Your task to perform on an android device: Open the music app Image 0: 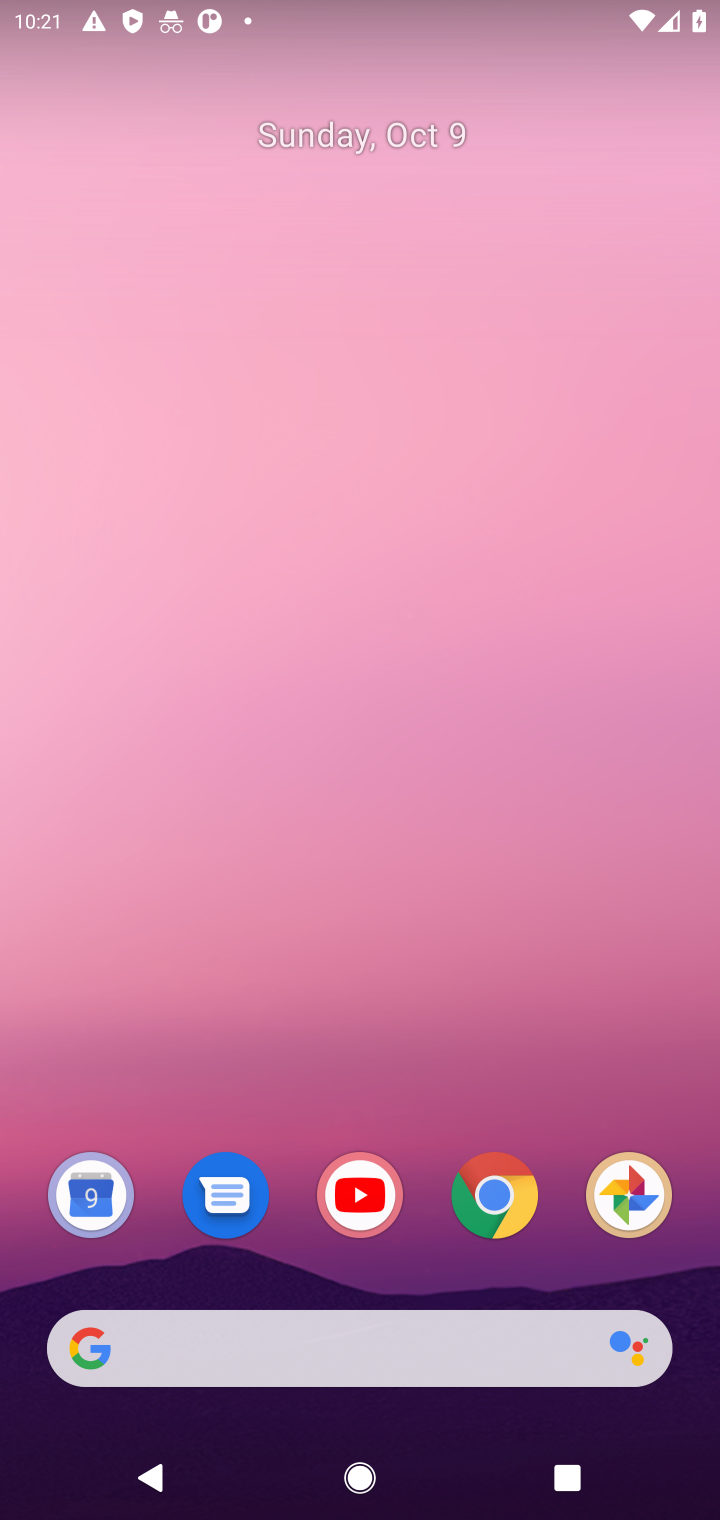
Step 0: click (655, 257)
Your task to perform on an android device: Open the music app Image 1: 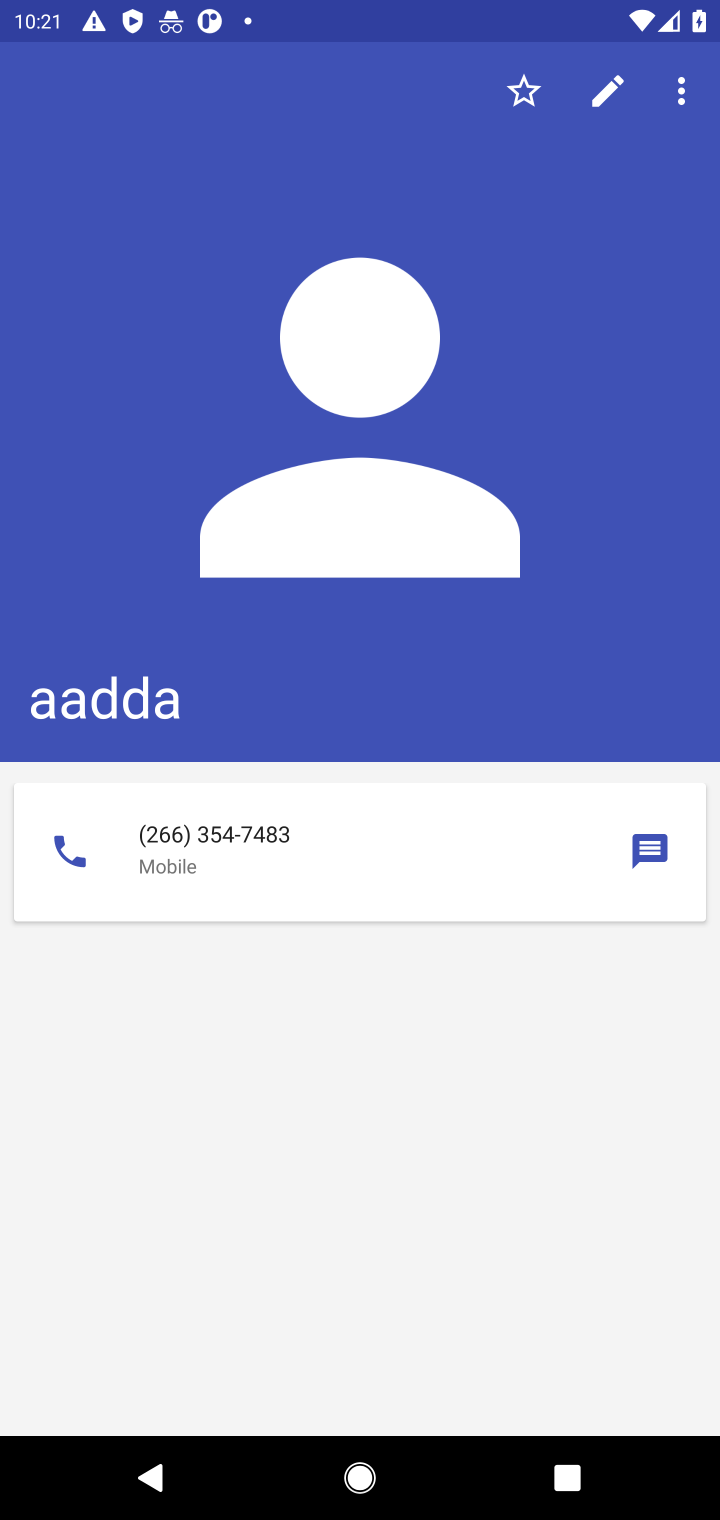
Step 1: press home button
Your task to perform on an android device: Open the music app Image 2: 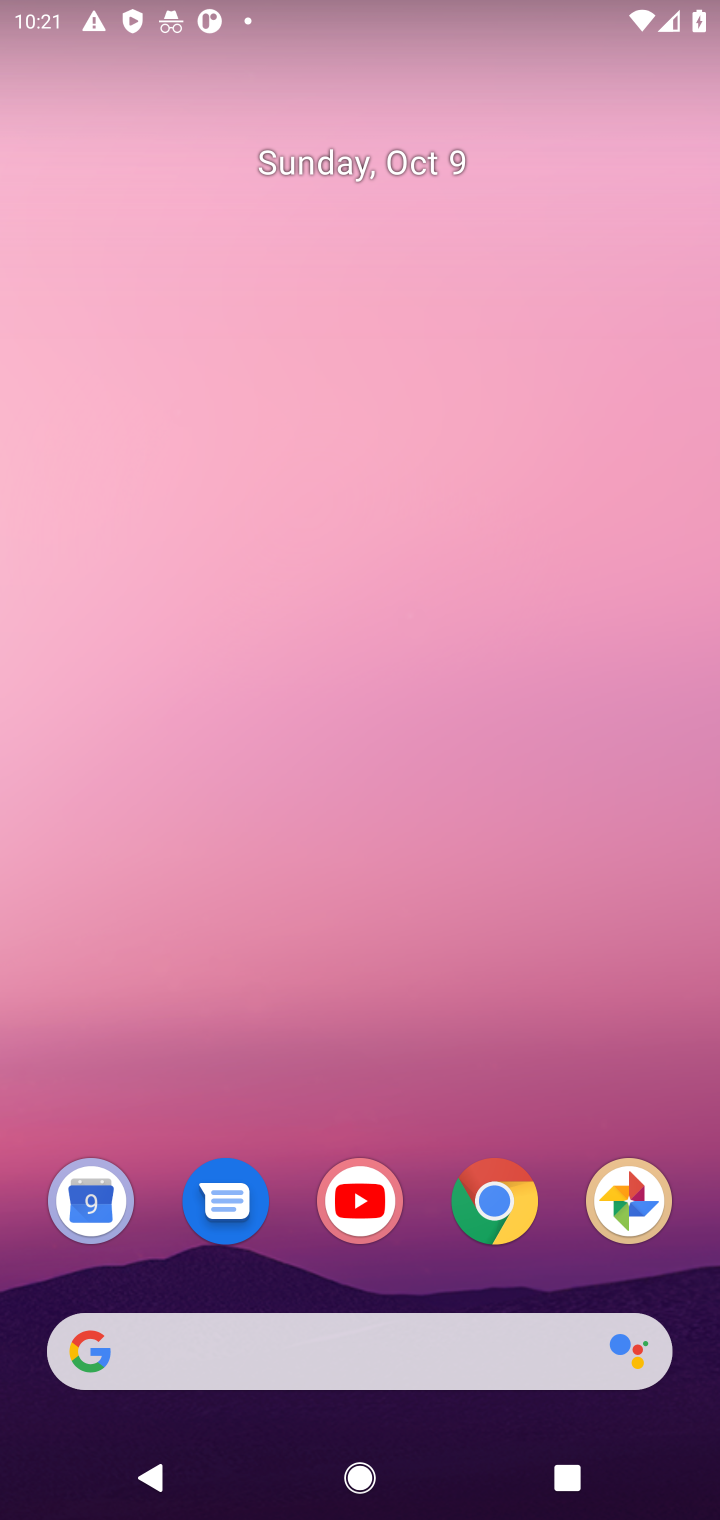
Step 2: drag from (334, 1320) to (382, 3)
Your task to perform on an android device: Open the music app Image 3: 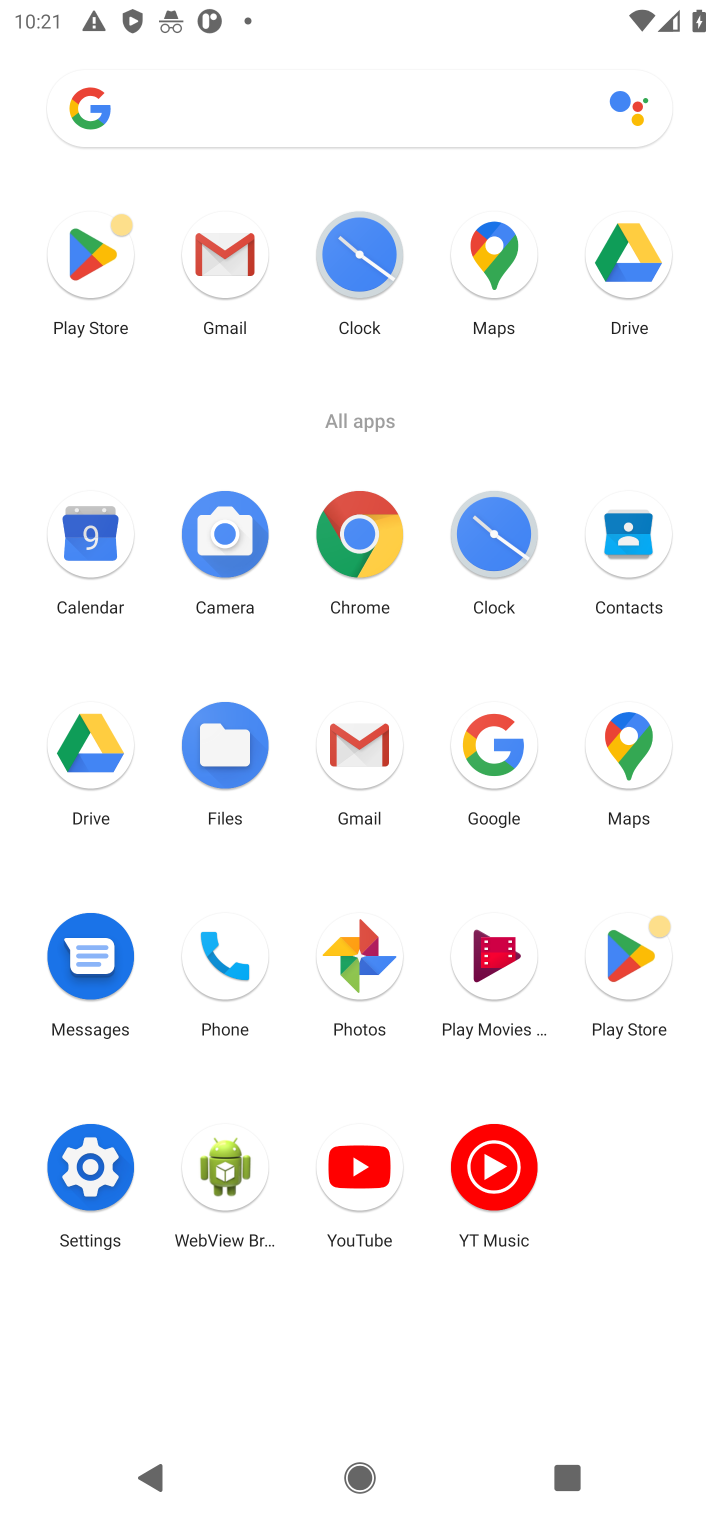
Step 3: click (627, 970)
Your task to perform on an android device: Open the music app Image 4: 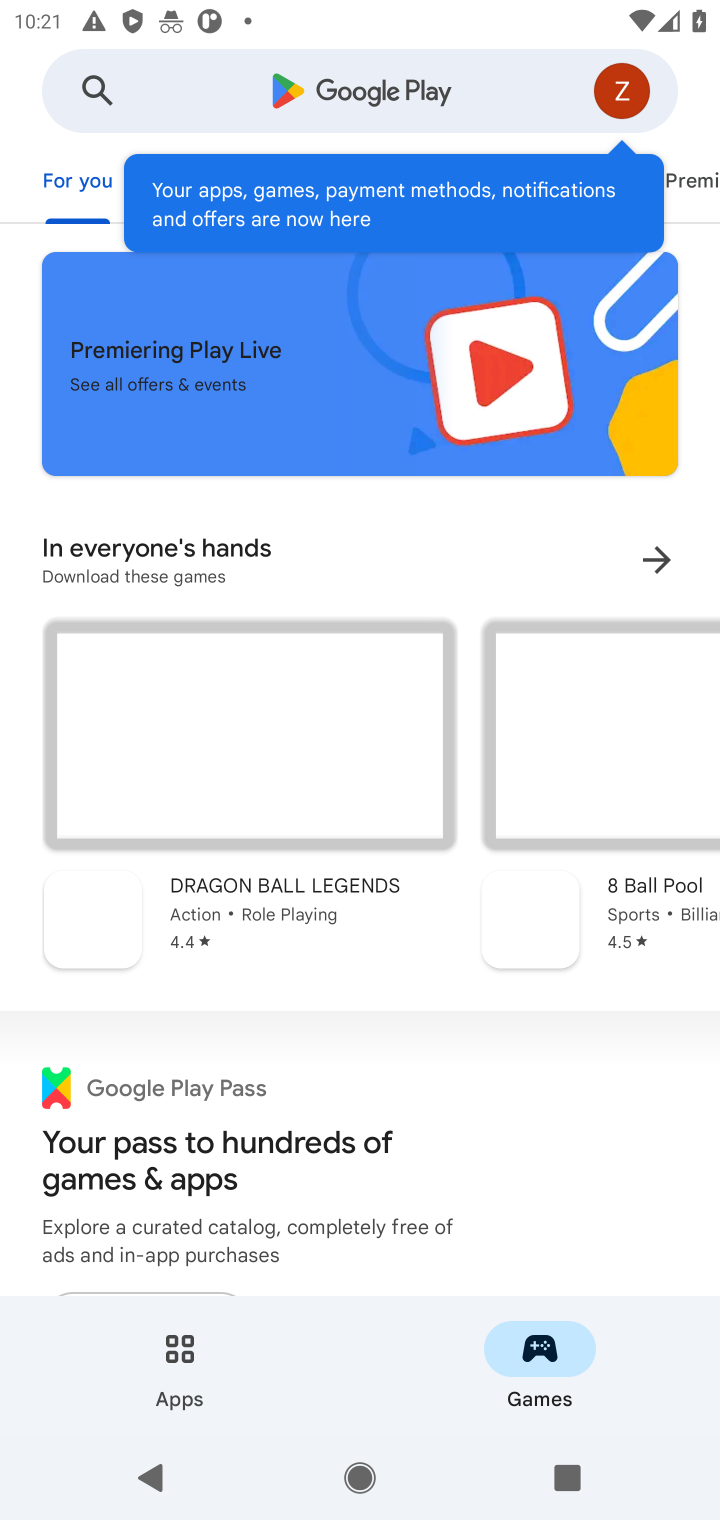
Step 4: click (384, 76)
Your task to perform on an android device: Open the music app Image 5: 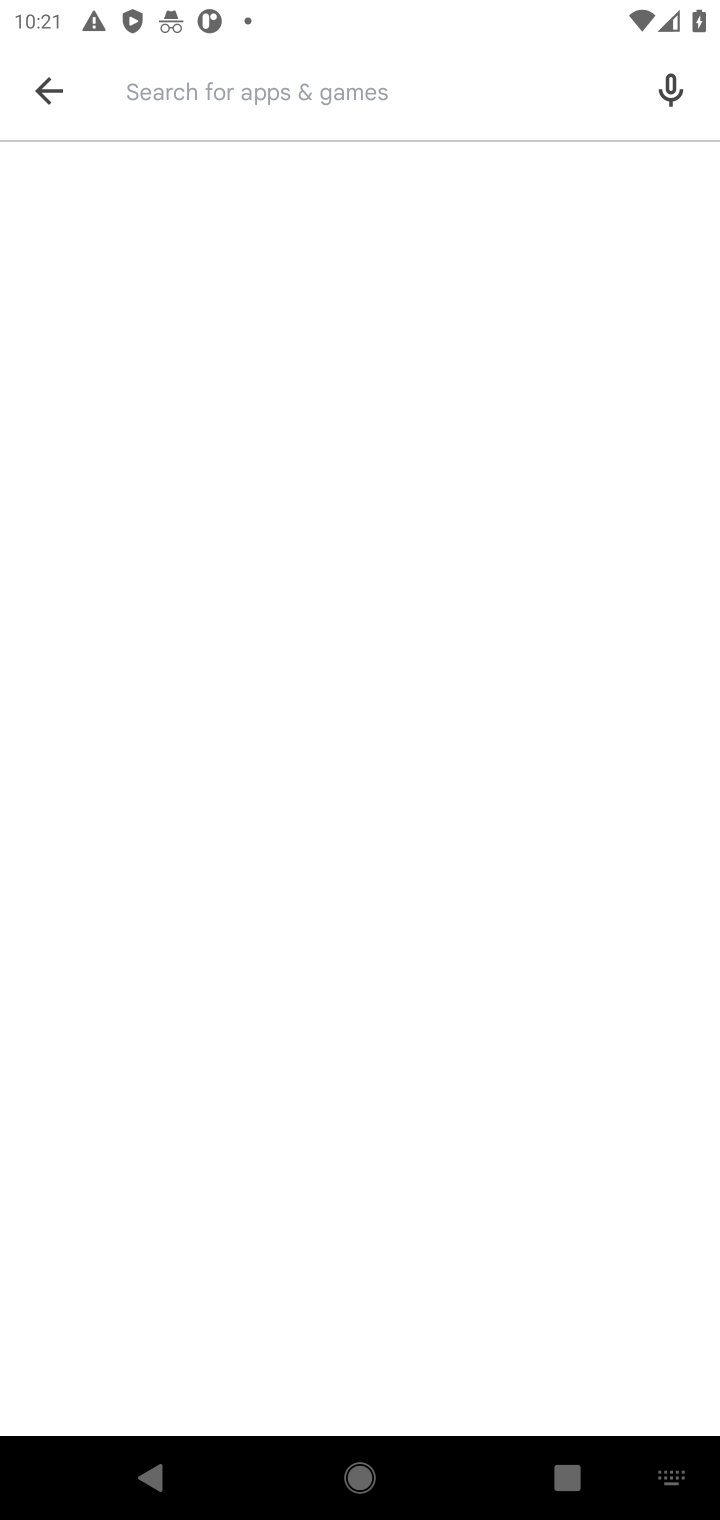
Step 5: type "music app"
Your task to perform on an android device: Open the music app Image 6: 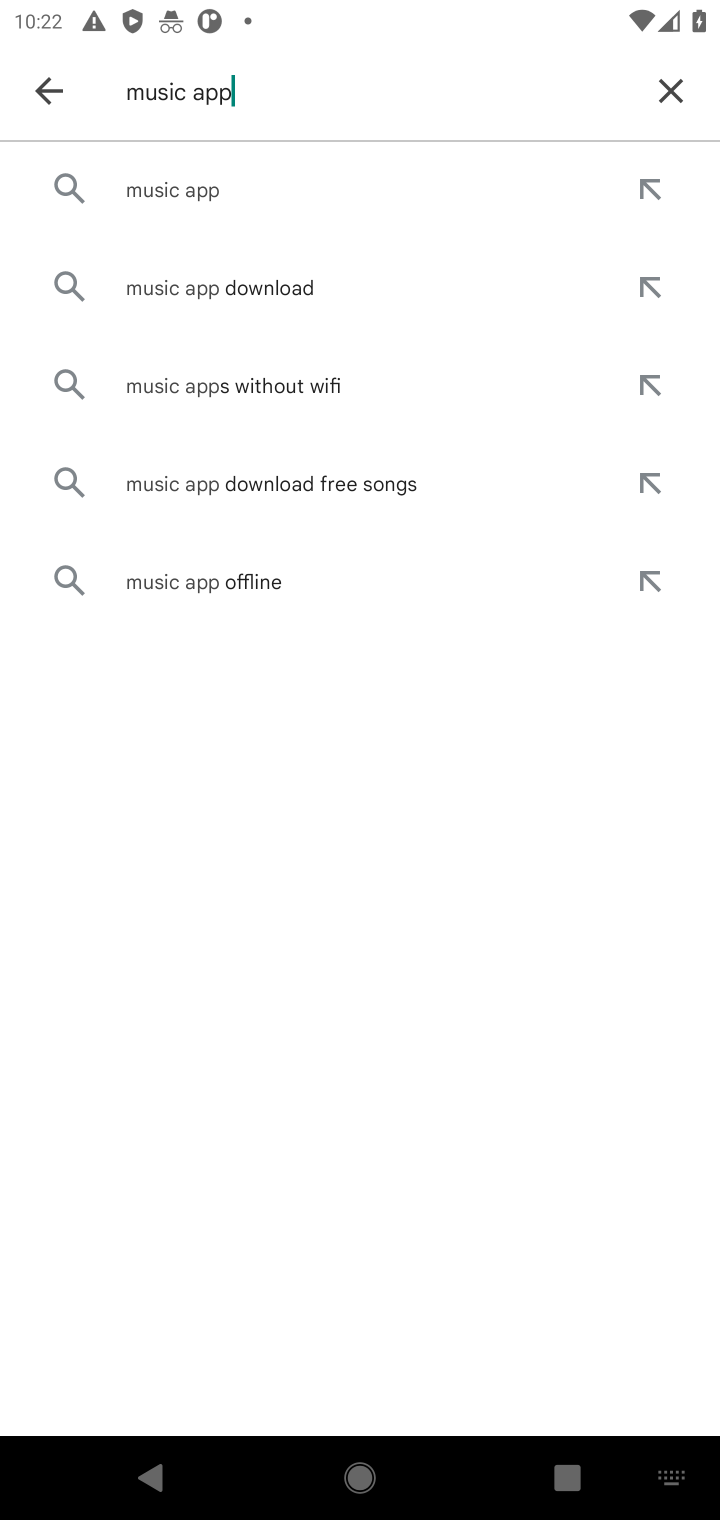
Step 6: click (150, 186)
Your task to perform on an android device: Open the music app Image 7: 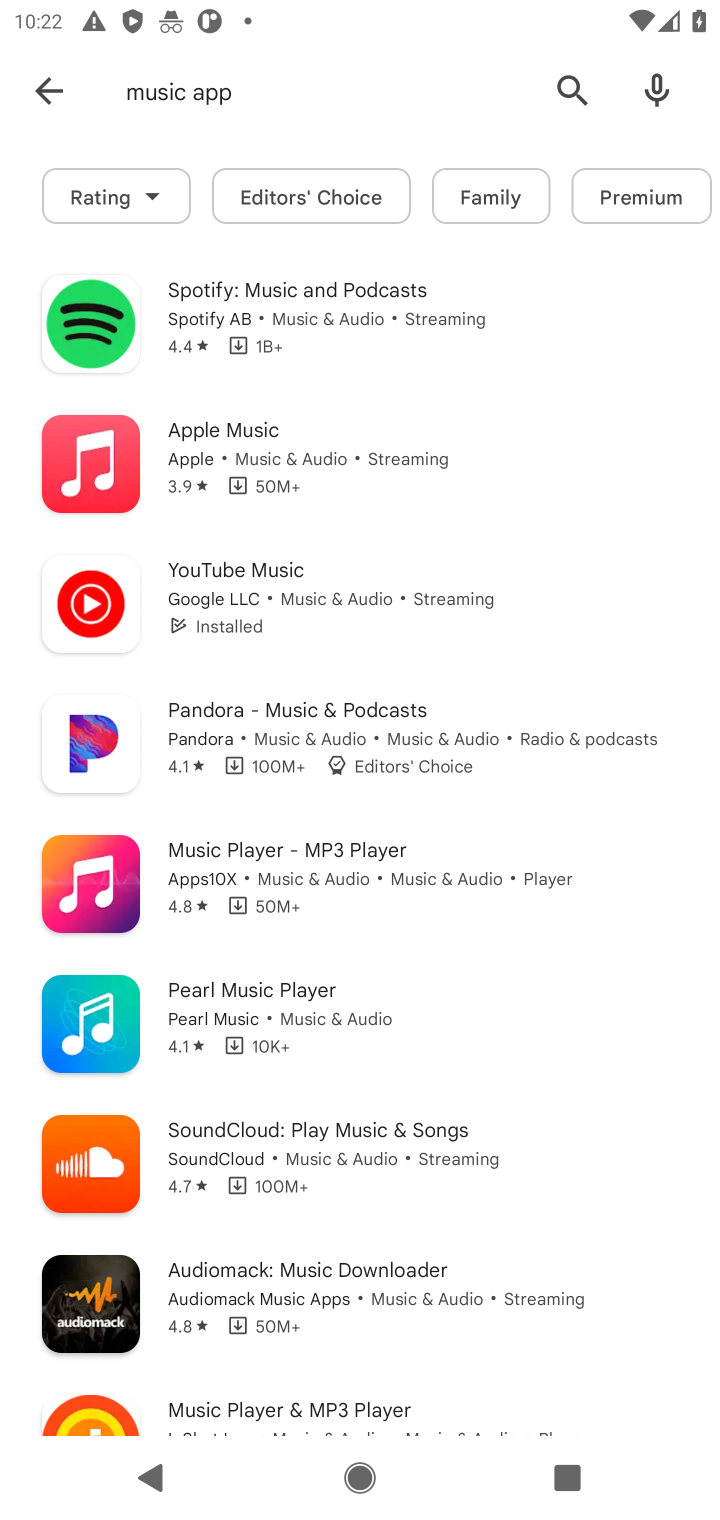
Step 7: task complete